Your task to perform on an android device: What's the news this month? Image 0: 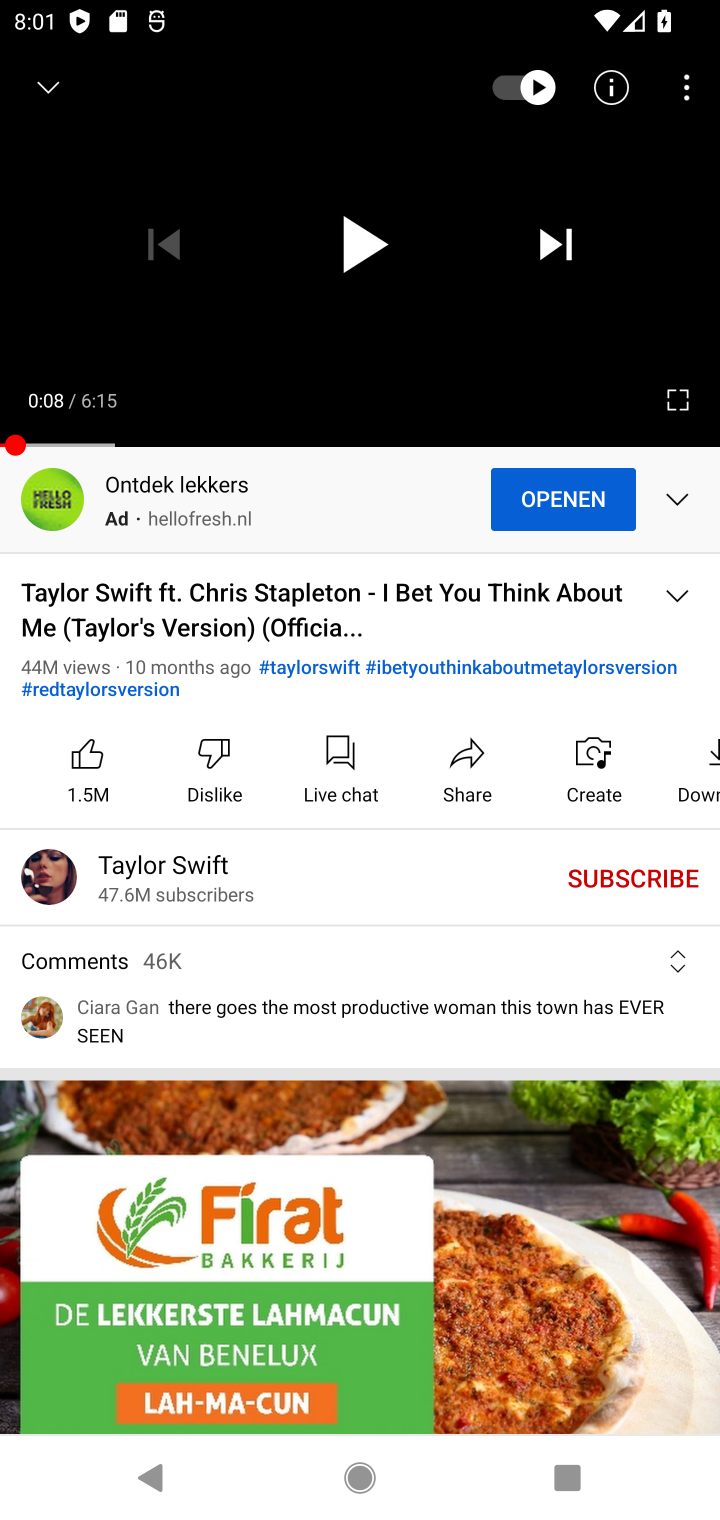
Step 0: press home button
Your task to perform on an android device: What's the news this month? Image 1: 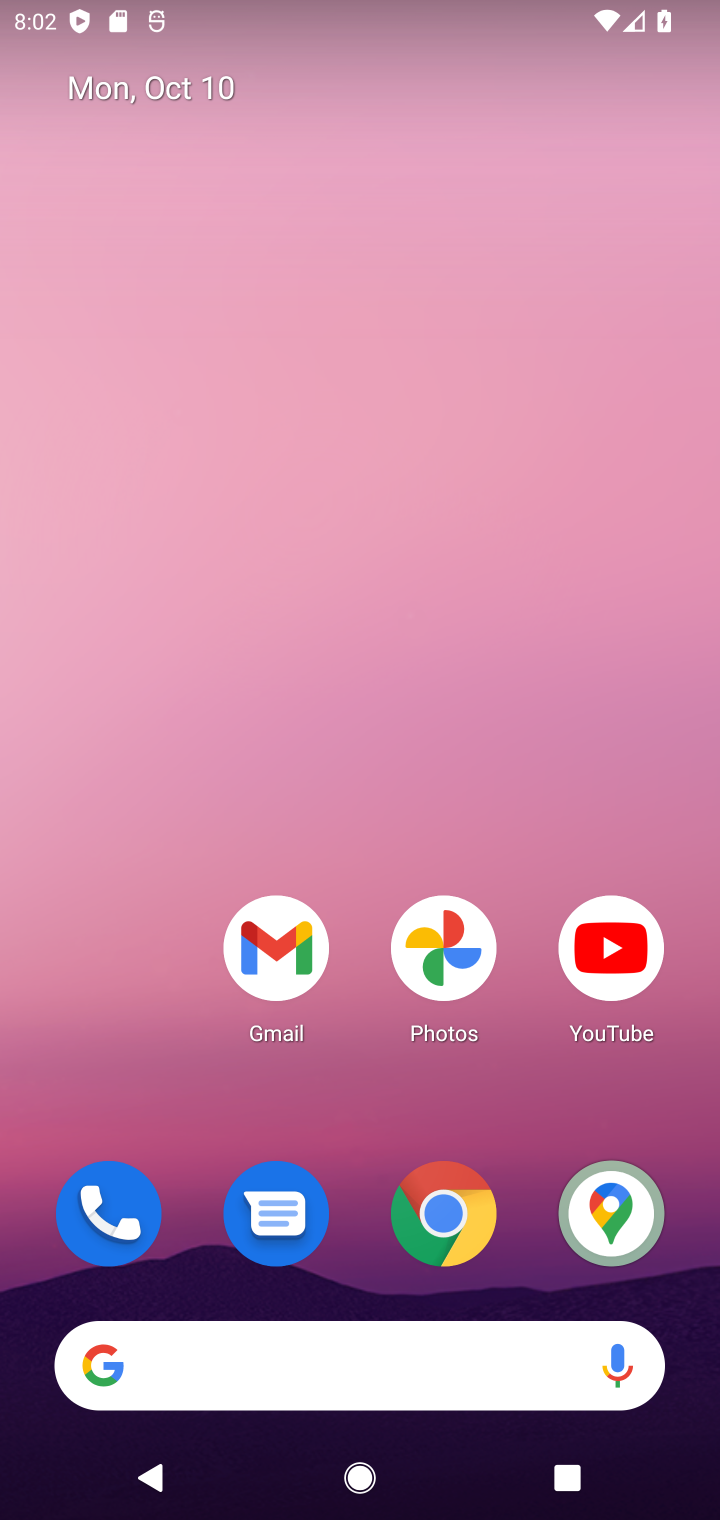
Step 1: click (284, 1396)
Your task to perform on an android device: What's the news this month? Image 2: 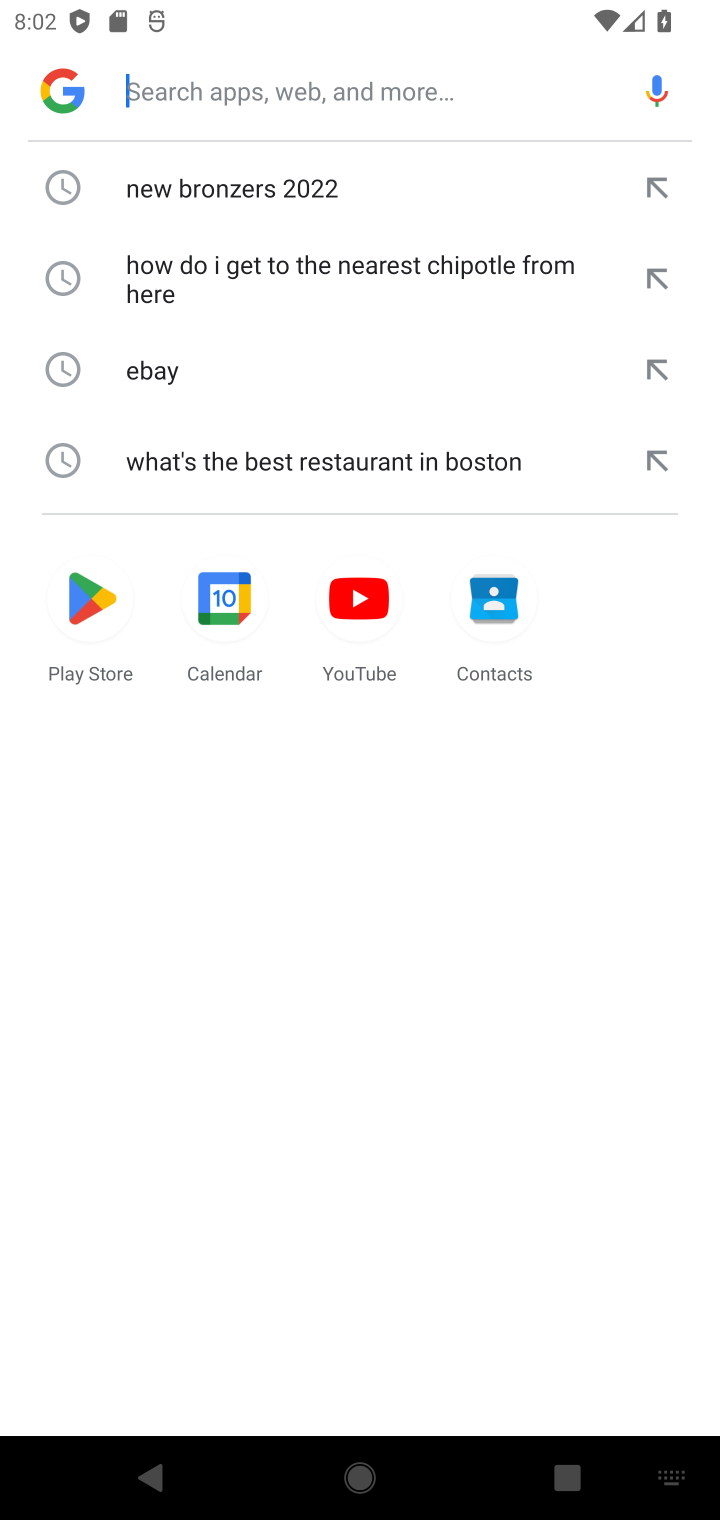
Step 2: click (184, 94)
Your task to perform on an android device: What's the news this month? Image 3: 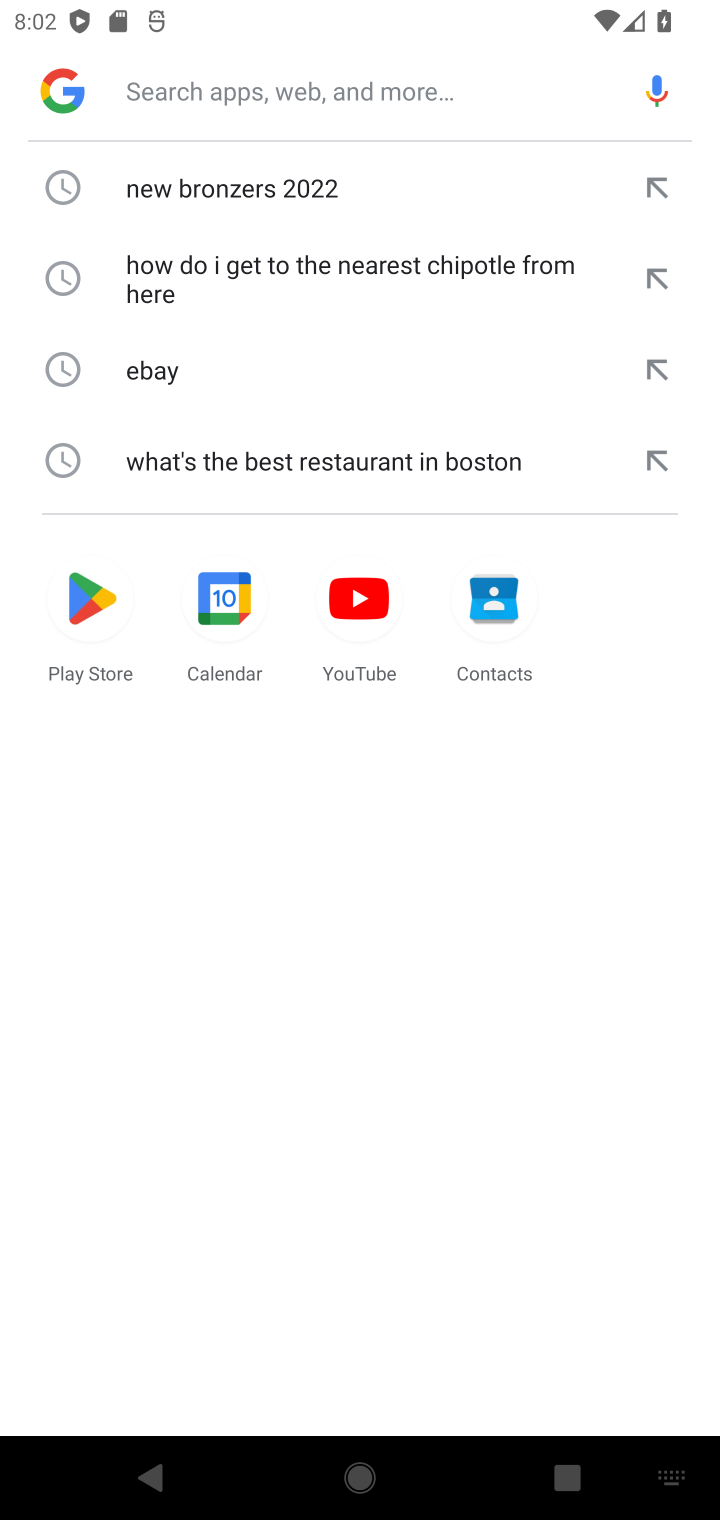
Step 3: type "What's the news this month"
Your task to perform on an android device: What's the news this month? Image 4: 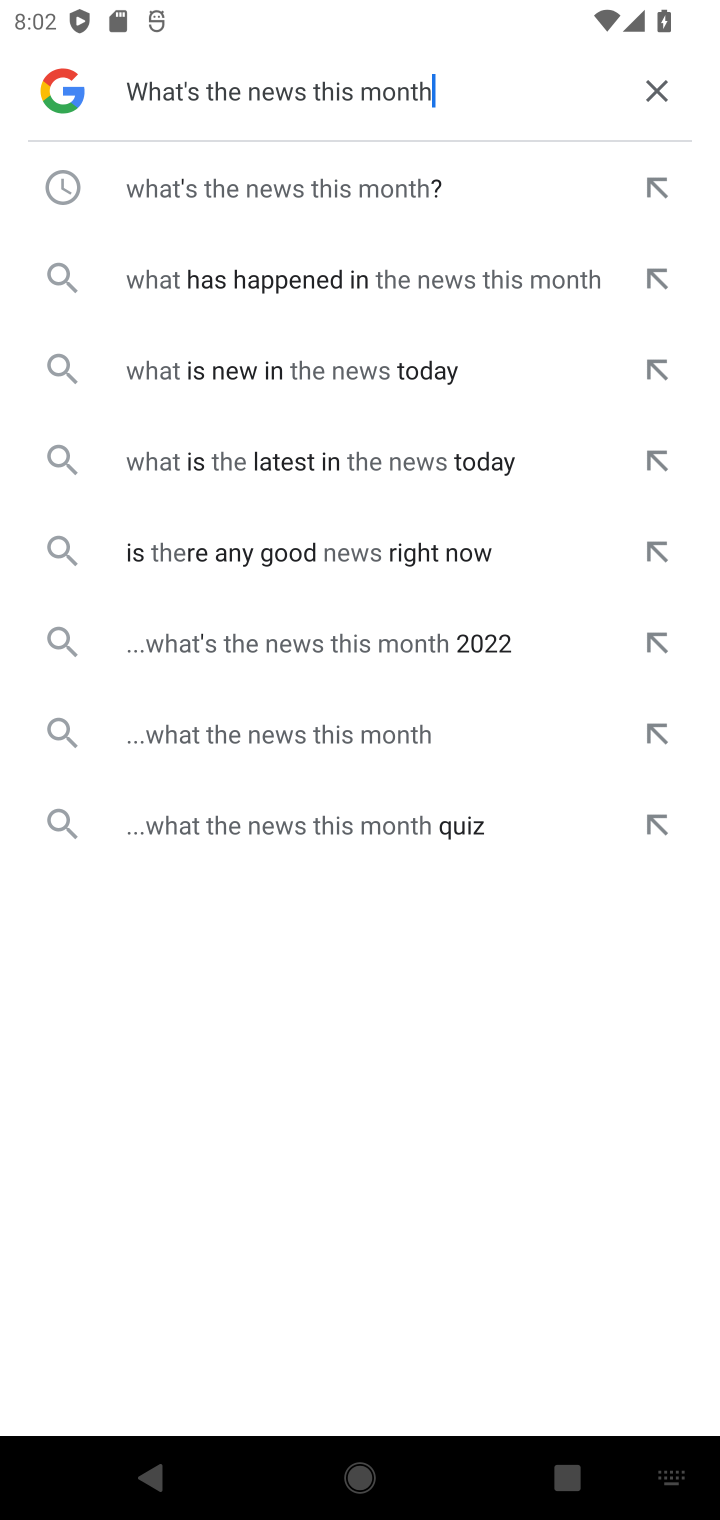
Step 4: click (241, 179)
Your task to perform on an android device: What's the news this month? Image 5: 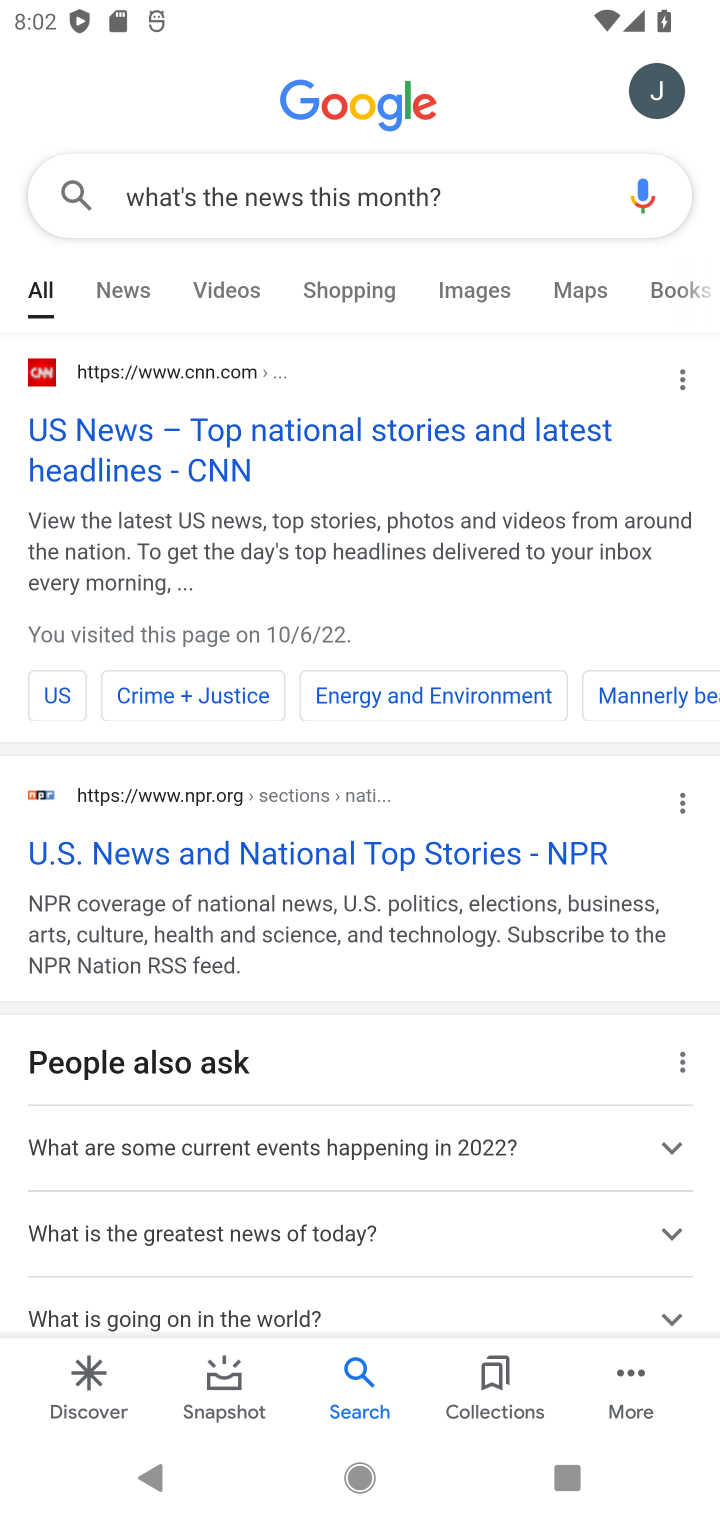
Step 5: drag from (173, 1296) to (620, 150)
Your task to perform on an android device: What's the news this month? Image 6: 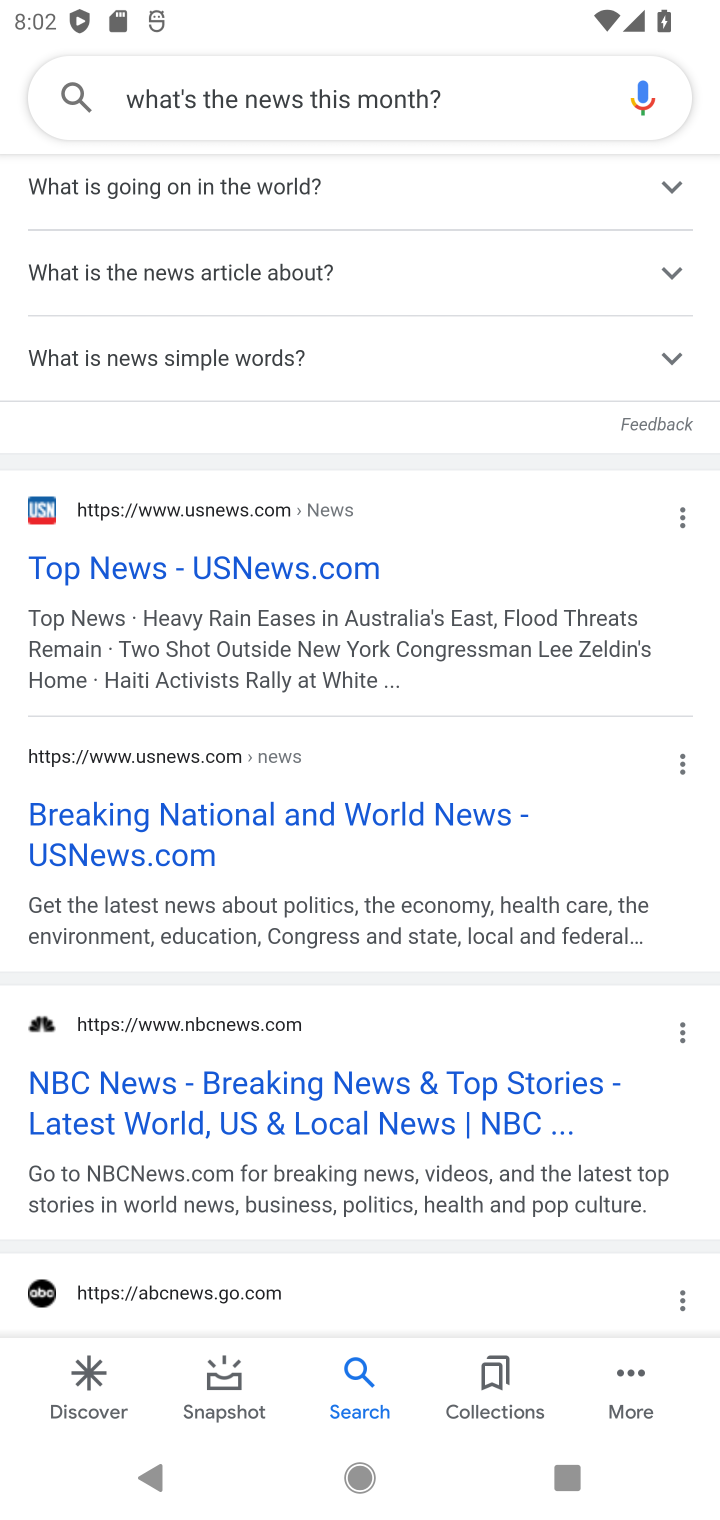
Step 6: drag from (370, 410) to (413, 1512)
Your task to perform on an android device: What's the news this month? Image 7: 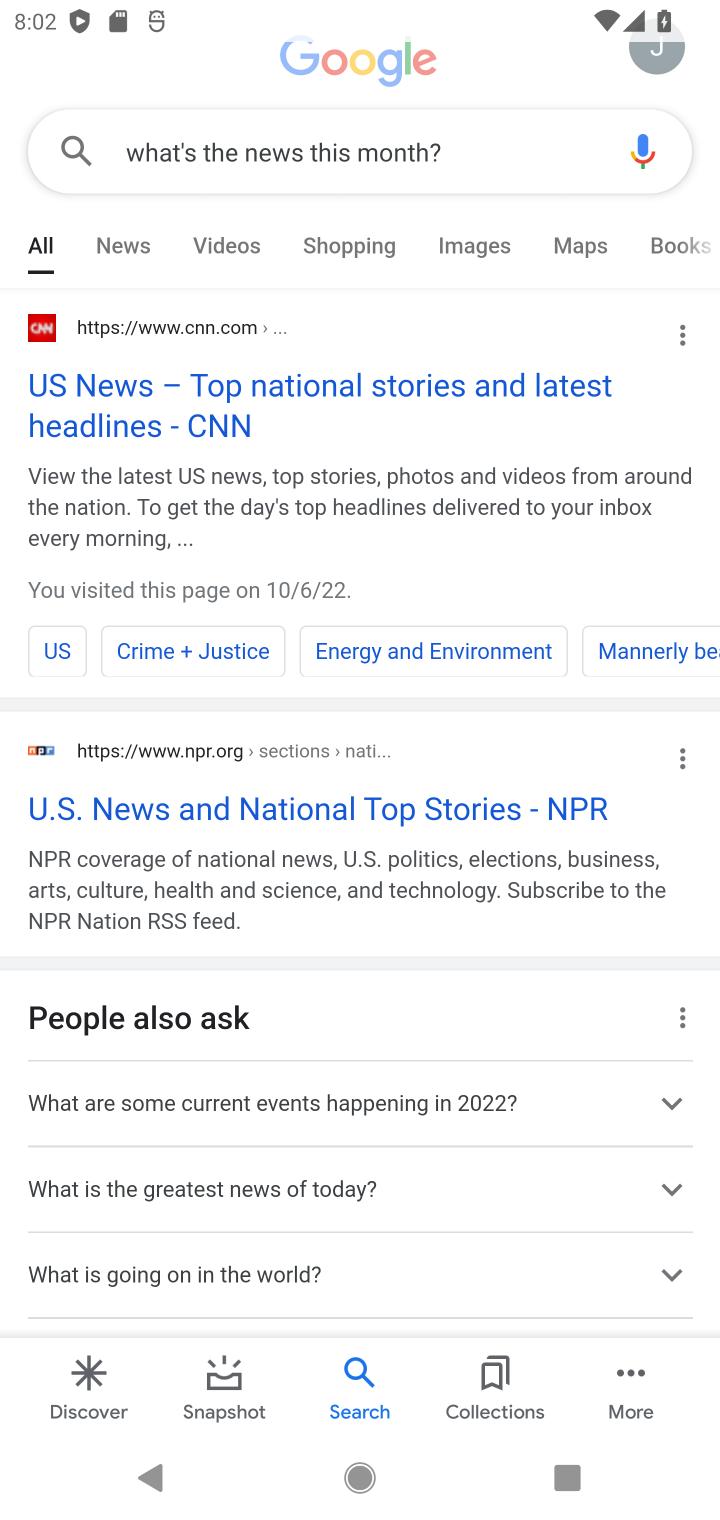
Step 7: click (302, 384)
Your task to perform on an android device: What's the news this month? Image 8: 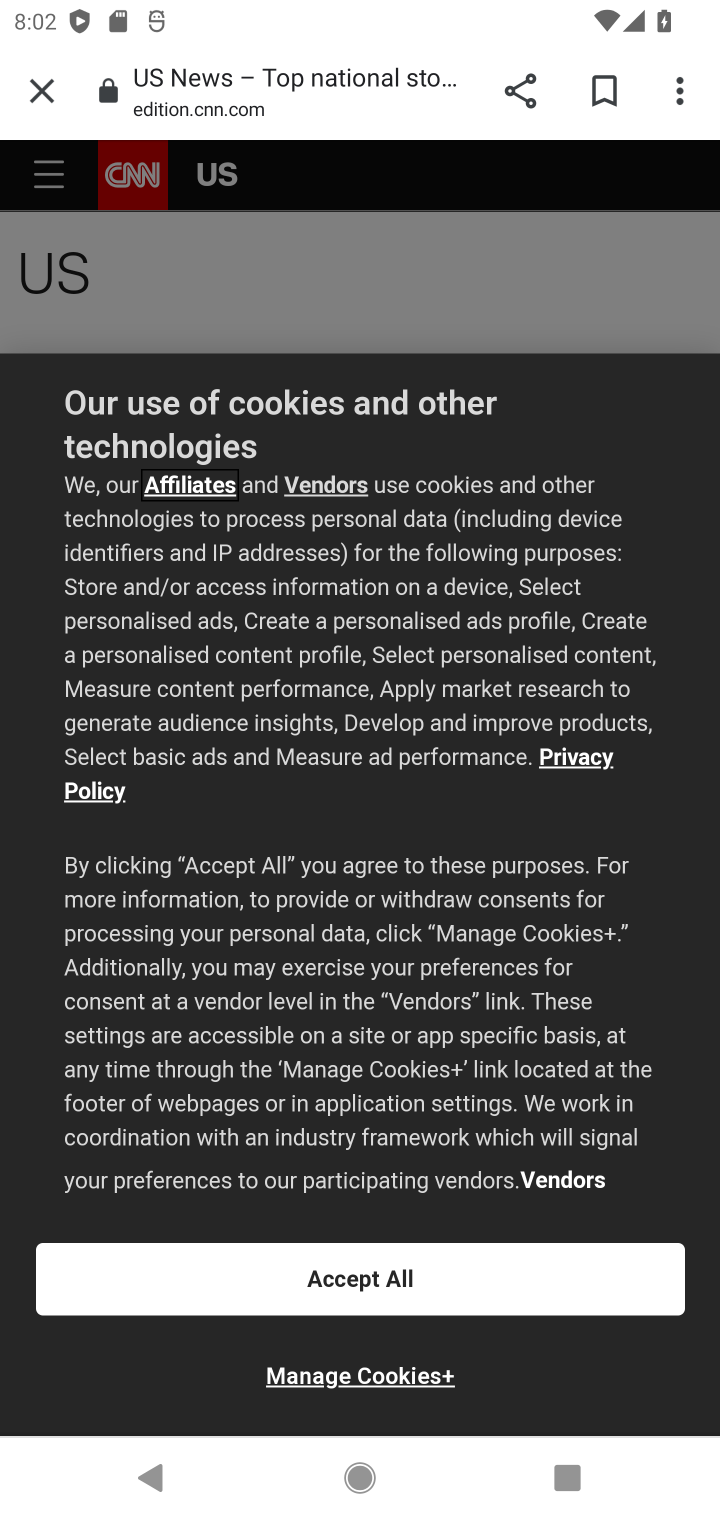
Step 8: task complete